Your task to perform on an android device: Go to Reddit.com Image 0: 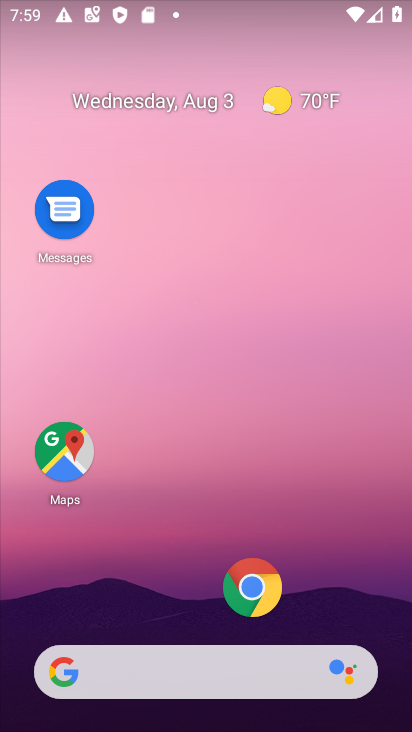
Step 0: click (267, 590)
Your task to perform on an android device: Go to Reddit.com Image 1: 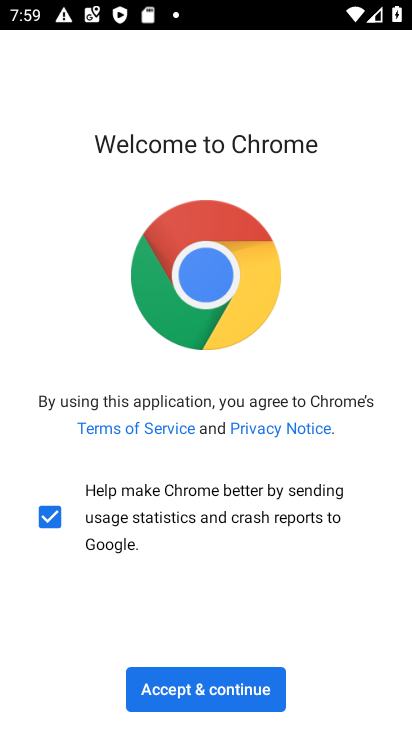
Step 1: click (193, 695)
Your task to perform on an android device: Go to Reddit.com Image 2: 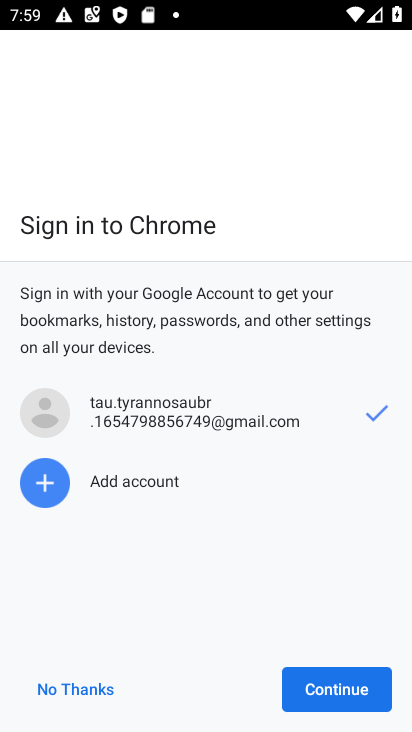
Step 2: click (335, 694)
Your task to perform on an android device: Go to Reddit.com Image 3: 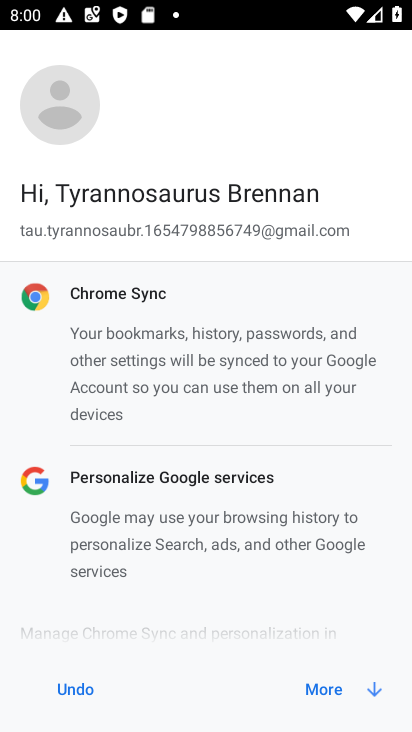
Step 3: click (338, 694)
Your task to perform on an android device: Go to Reddit.com Image 4: 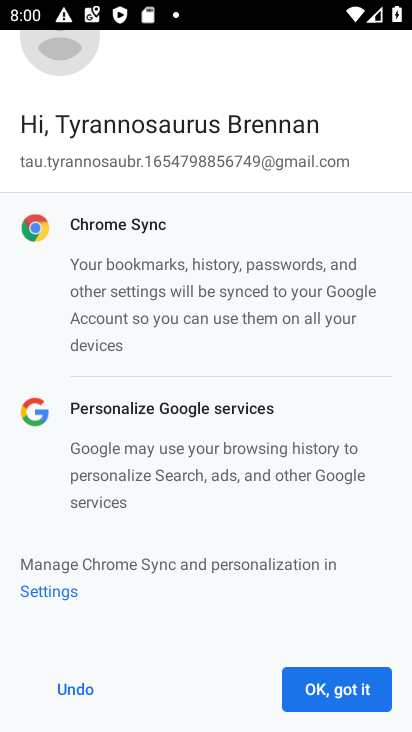
Step 4: click (338, 695)
Your task to perform on an android device: Go to Reddit.com Image 5: 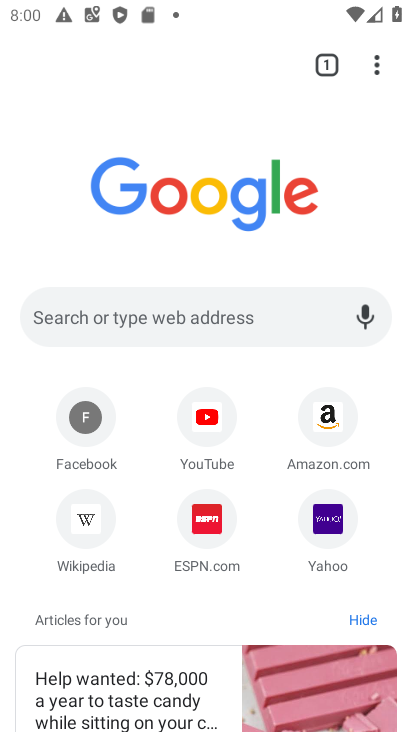
Step 5: click (237, 325)
Your task to perform on an android device: Go to Reddit.com Image 6: 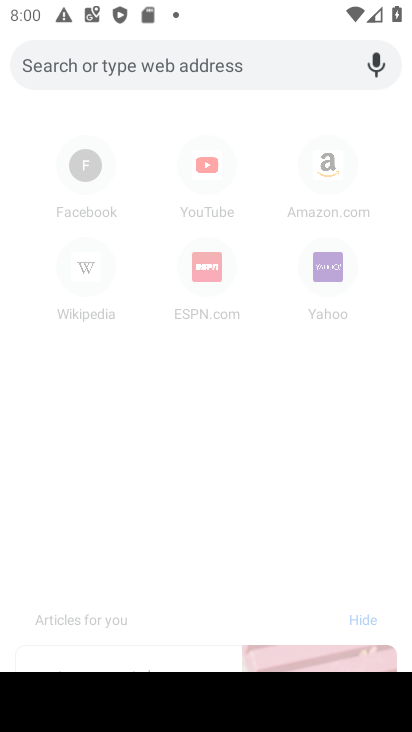
Step 6: type "Reddit.com"
Your task to perform on an android device: Go to Reddit.com Image 7: 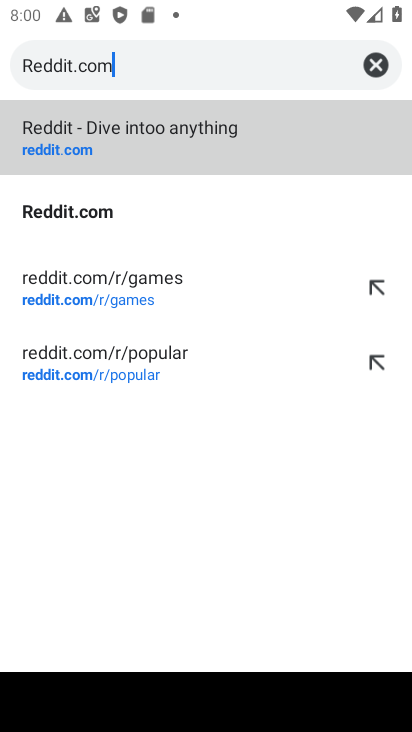
Step 7: click (142, 160)
Your task to perform on an android device: Go to Reddit.com Image 8: 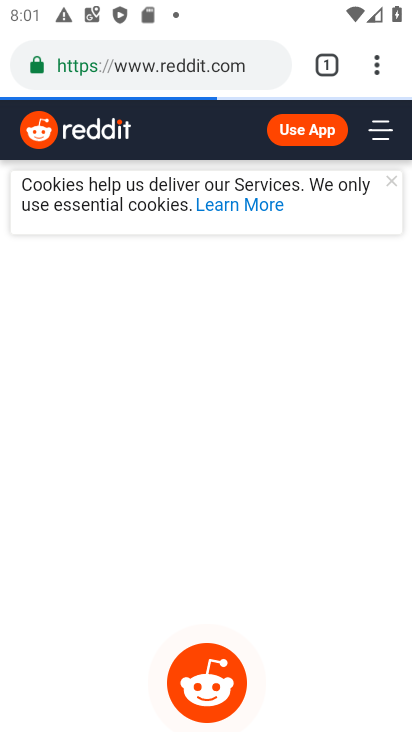
Step 8: task complete